Your task to perform on an android device: Do I have any events today? Image 0: 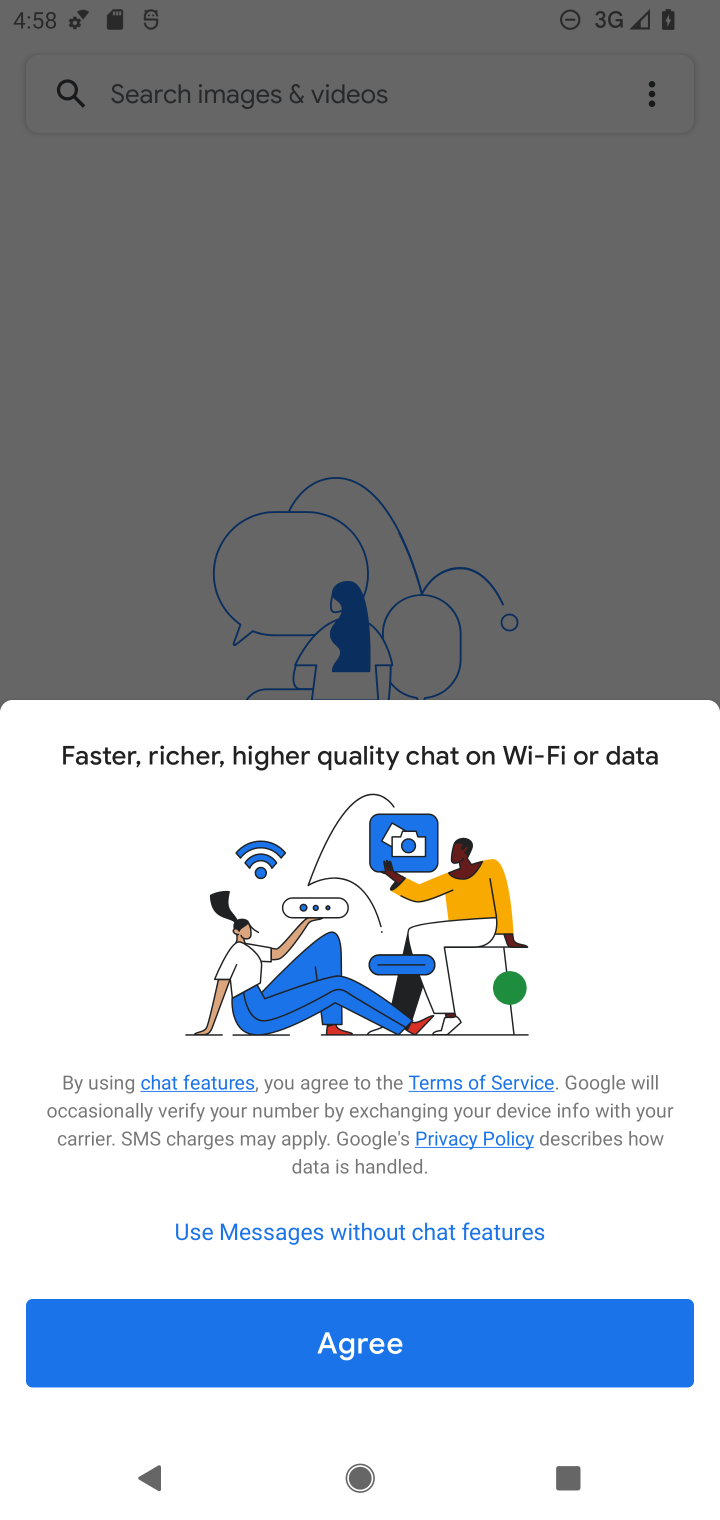
Step 0: press home button
Your task to perform on an android device: Do I have any events today? Image 1: 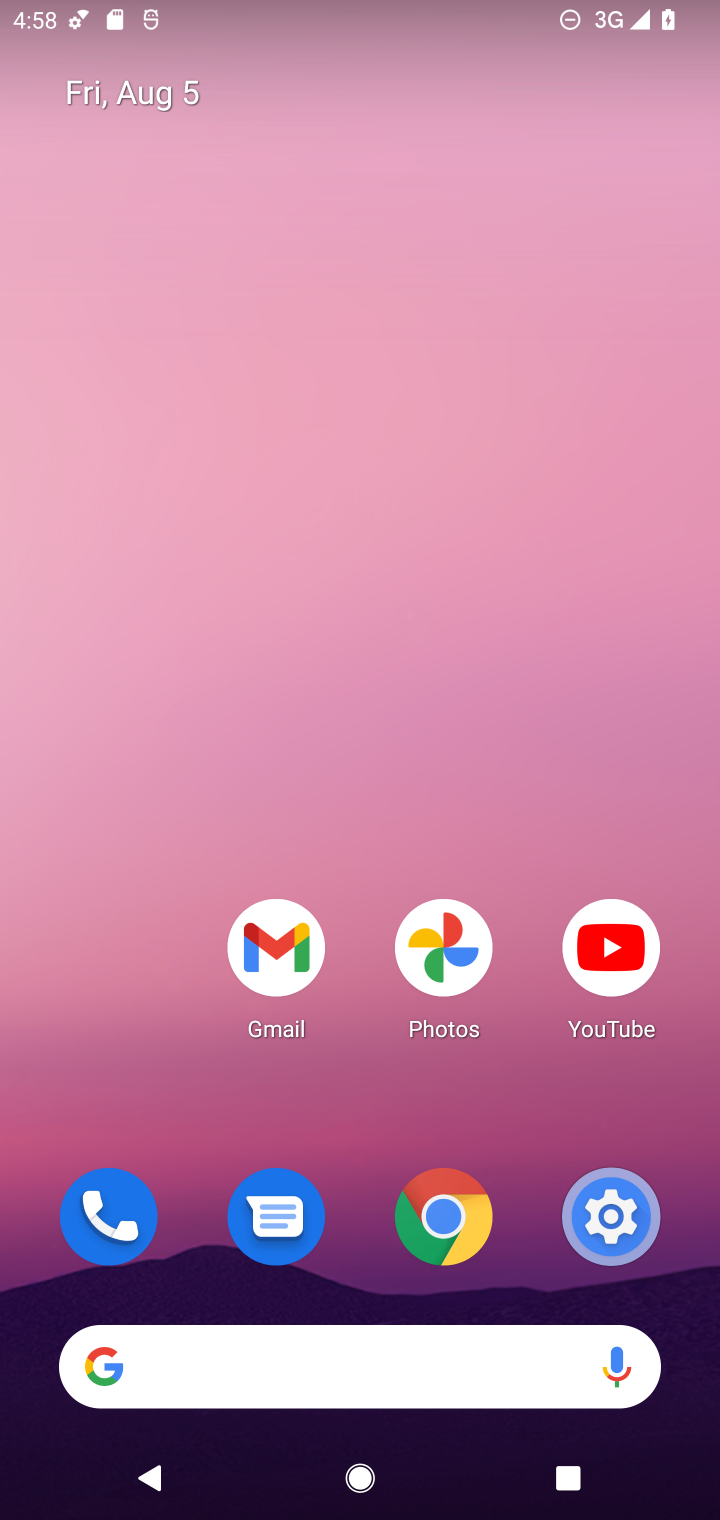
Step 1: drag from (172, 1087) to (152, 70)
Your task to perform on an android device: Do I have any events today? Image 2: 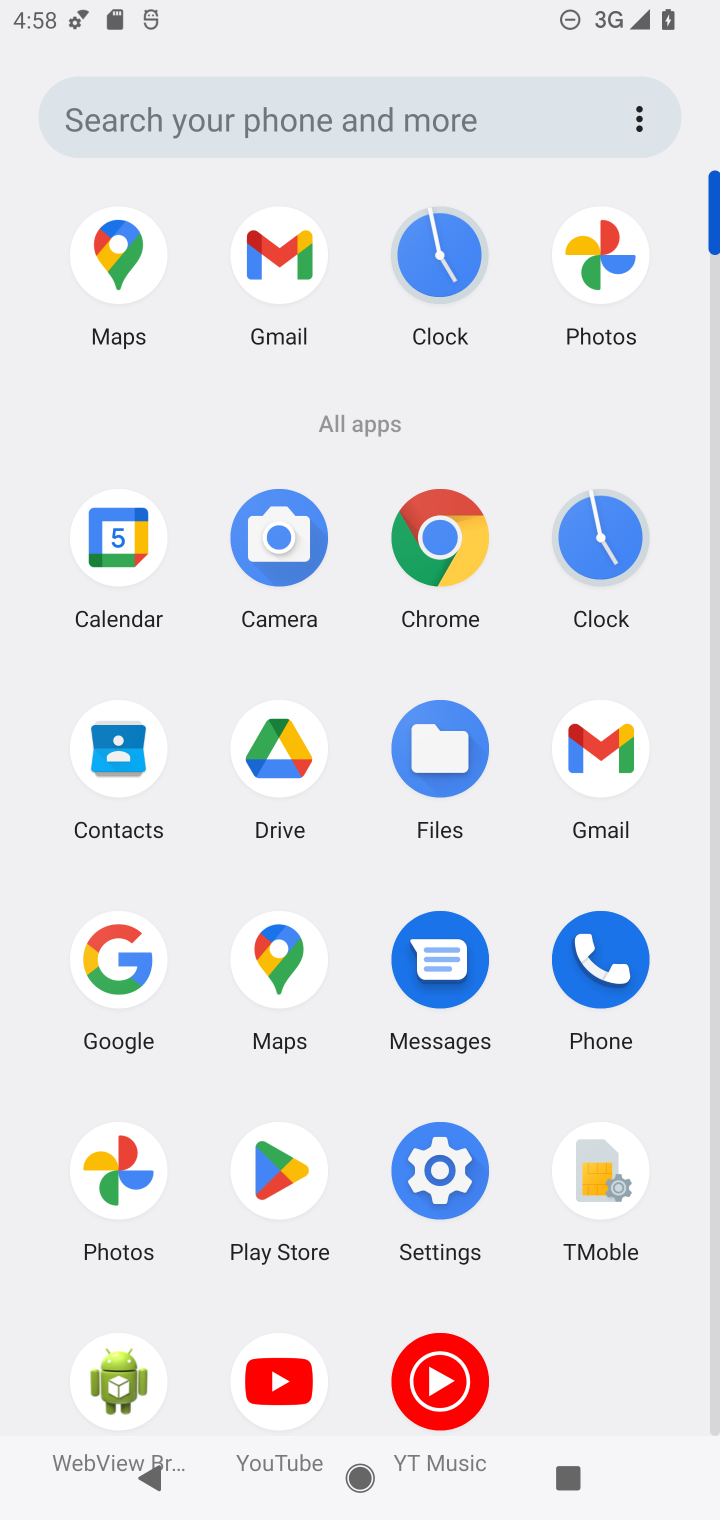
Step 2: click (107, 521)
Your task to perform on an android device: Do I have any events today? Image 3: 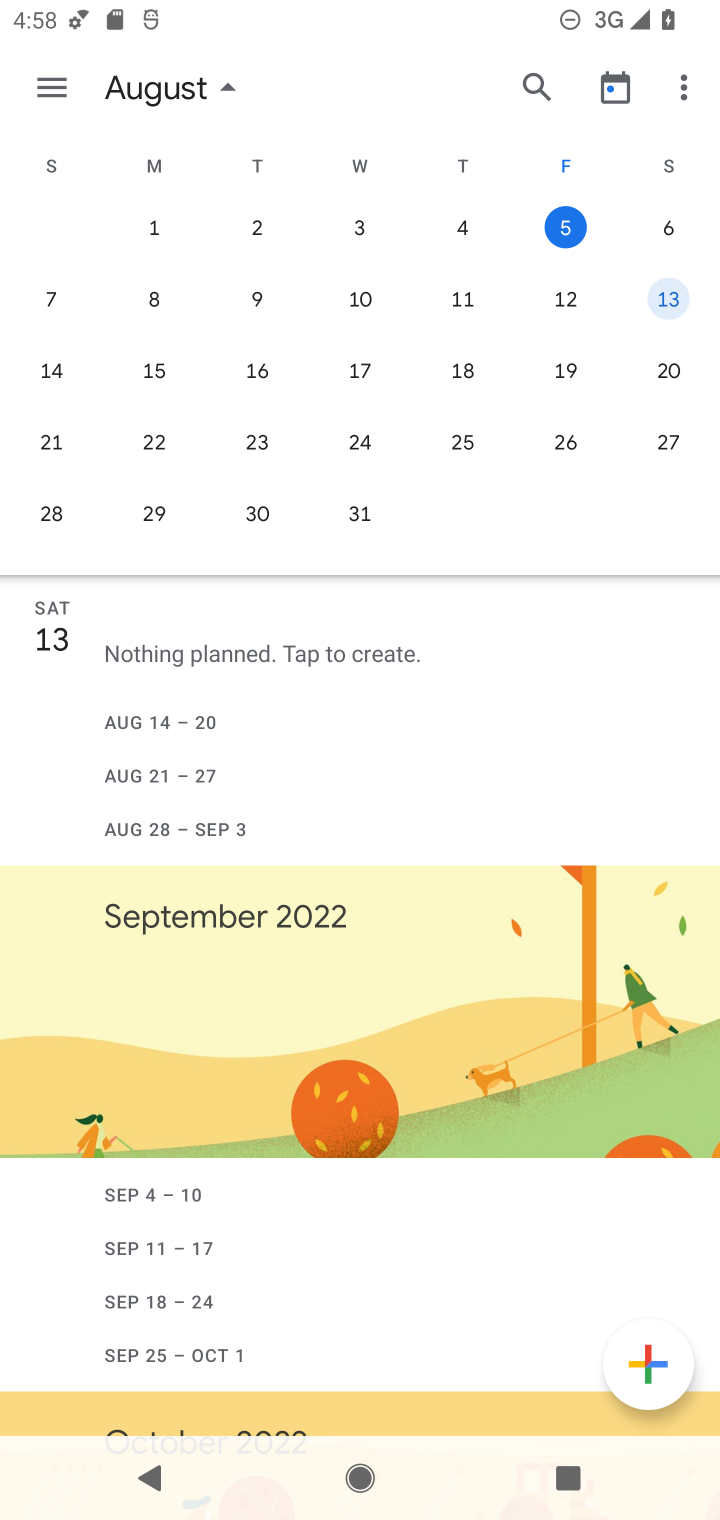
Step 3: click (560, 221)
Your task to perform on an android device: Do I have any events today? Image 4: 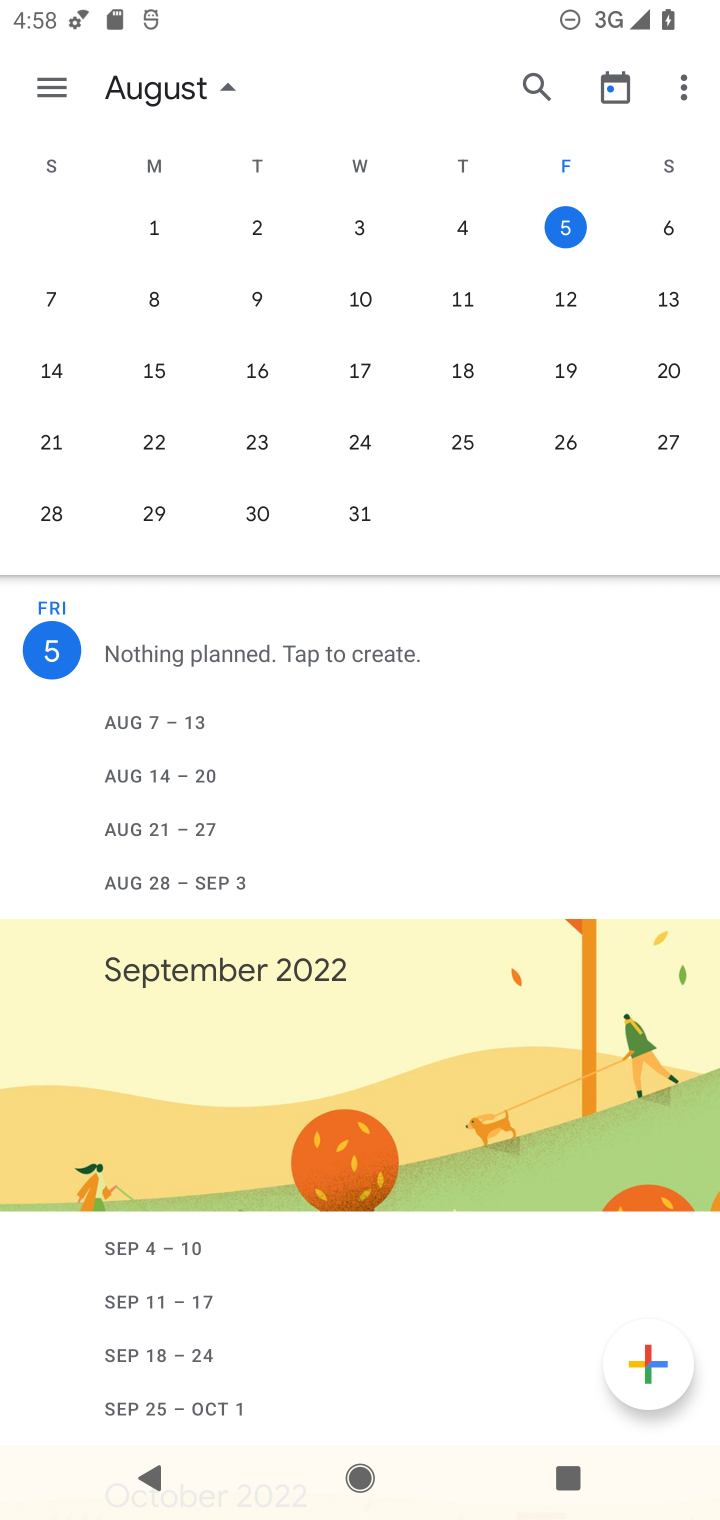
Step 4: task complete